Your task to perform on an android device: Open location settings Image 0: 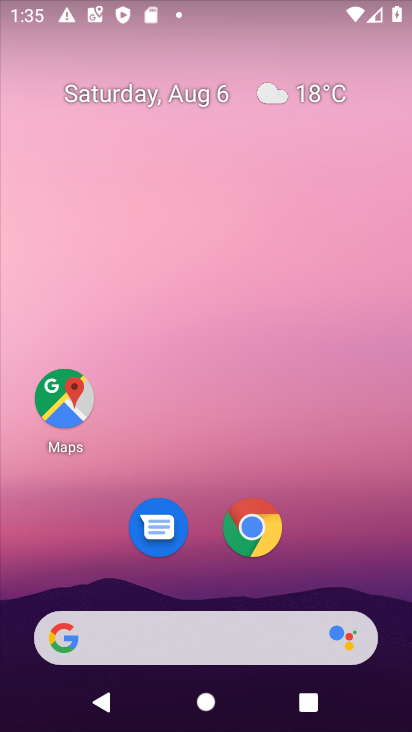
Step 0: drag from (199, 562) to (266, 104)
Your task to perform on an android device: Open location settings Image 1: 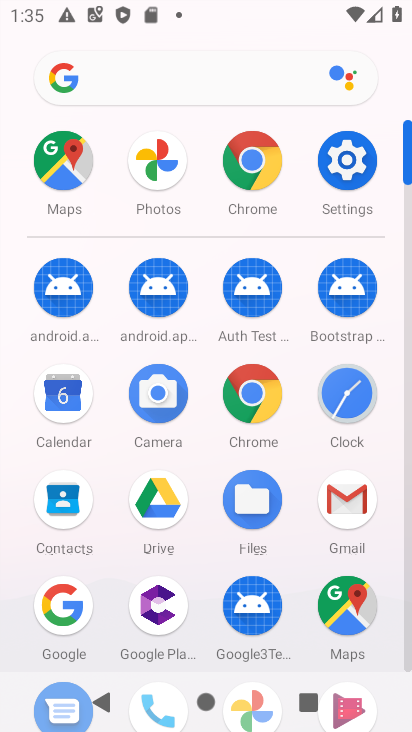
Step 1: drag from (194, 99) to (191, 41)
Your task to perform on an android device: Open location settings Image 2: 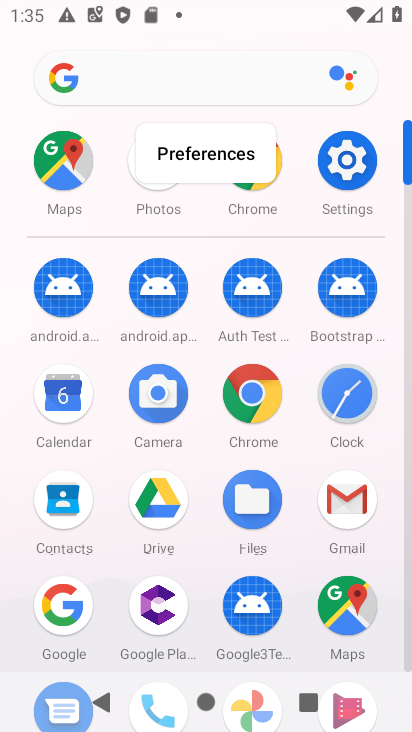
Step 2: drag from (302, 275) to (291, 48)
Your task to perform on an android device: Open location settings Image 3: 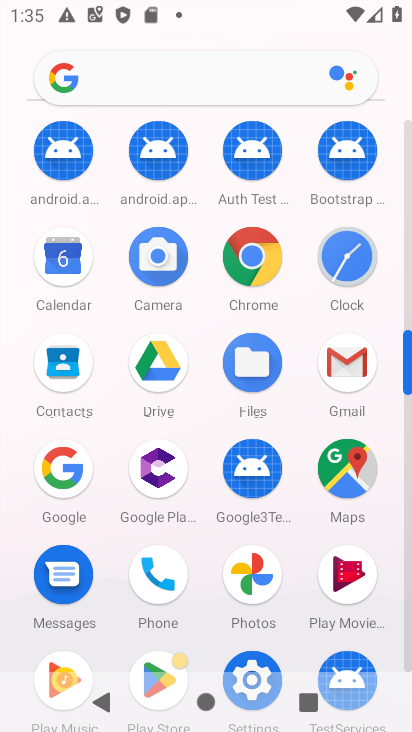
Step 3: drag from (304, 278) to (282, 28)
Your task to perform on an android device: Open location settings Image 4: 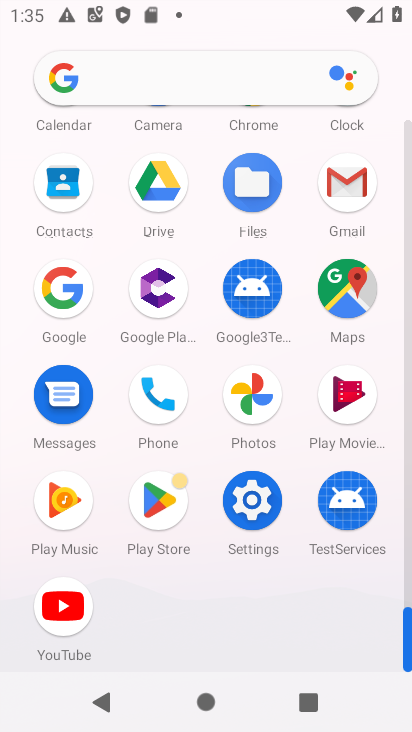
Step 4: click (253, 505)
Your task to perform on an android device: Open location settings Image 5: 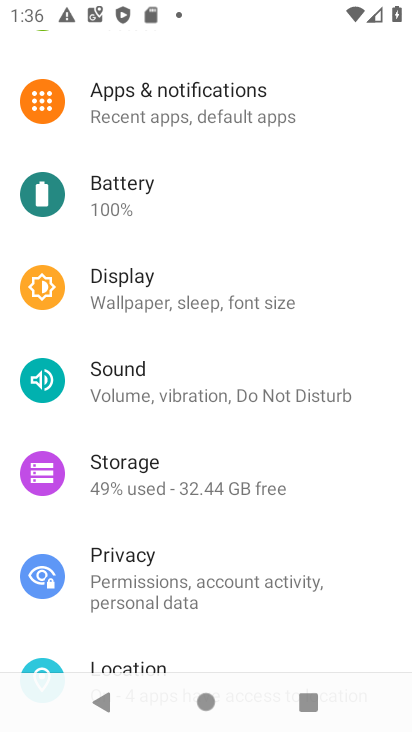
Step 5: drag from (189, 662) to (285, 238)
Your task to perform on an android device: Open location settings Image 6: 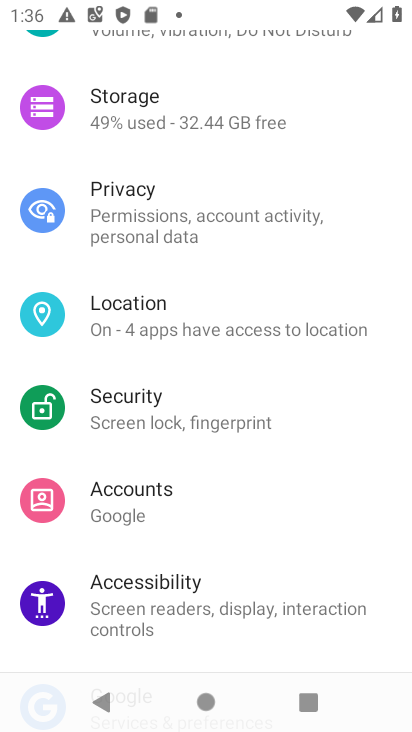
Step 6: click (241, 354)
Your task to perform on an android device: Open location settings Image 7: 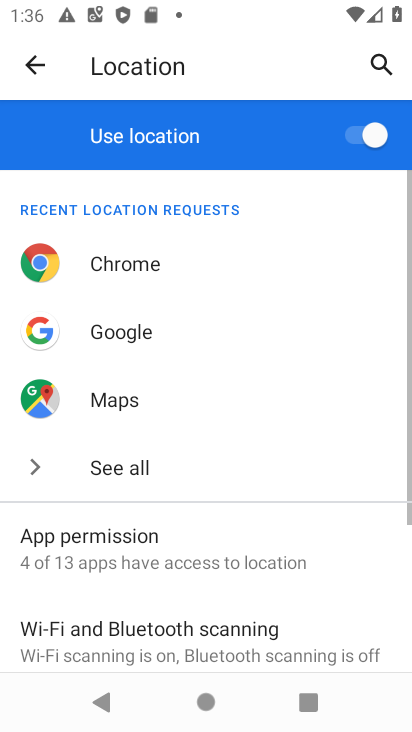
Step 7: drag from (165, 566) to (213, 141)
Your task to perform on an android device: Open location settings Image 8: 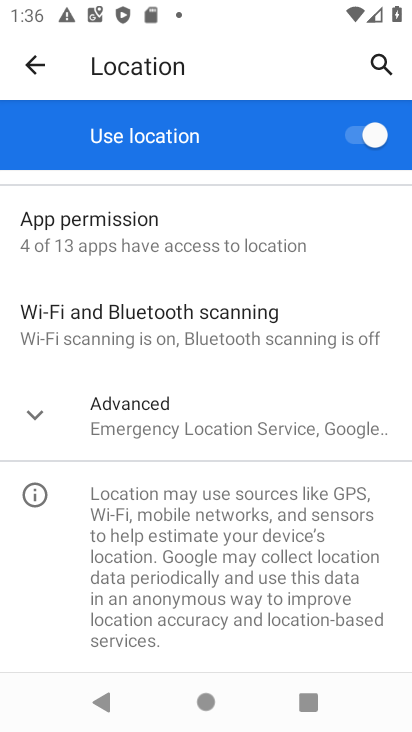
Step 8: click (197, 418)
Your task to perform on an android device: Open location settings Image 9: 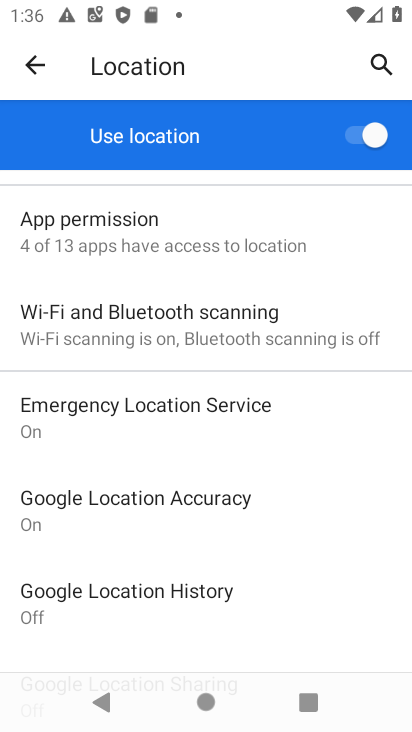
Step 9: task complete